Your task to perform on an android device: turn off picture-in-picture Image 0: 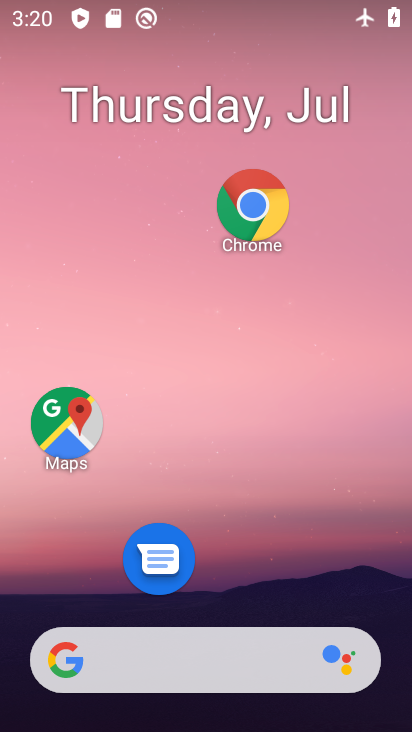
Step 0: drag from (306, 637) to (355, 78)
Your task to perform on an android device: turn off picture-in-picture Image 1: 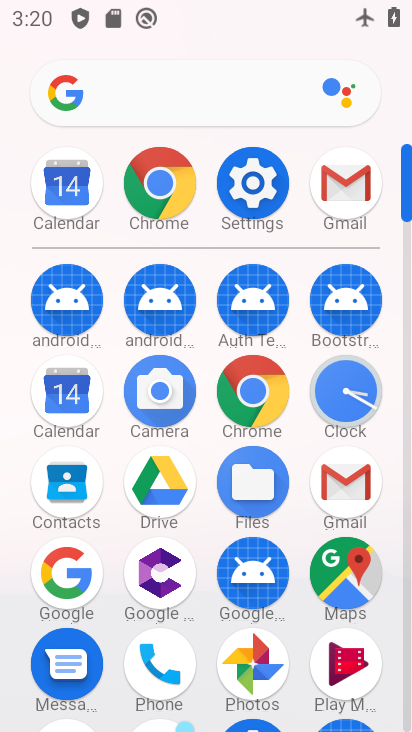
Step 1: drag from (184, 508) to (174, 259)
Your task to perform on an android device: turn off picture-in-picture Image 2: 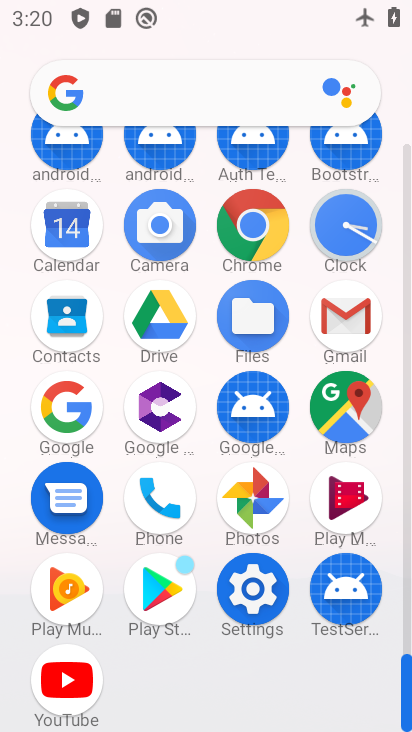
Step 2: click (259, 613)
Your task to perform on an android device: turn off picture-in-picture Image 3: 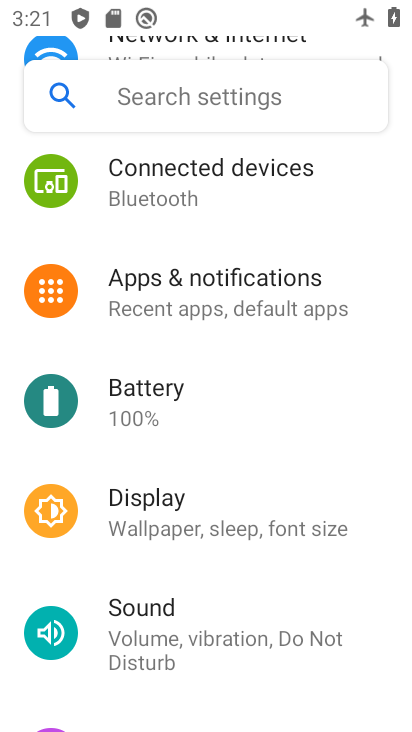
Step 3: click (206, 298)
Your task to perform on an android device: turn off picture-in-picture Image 4: 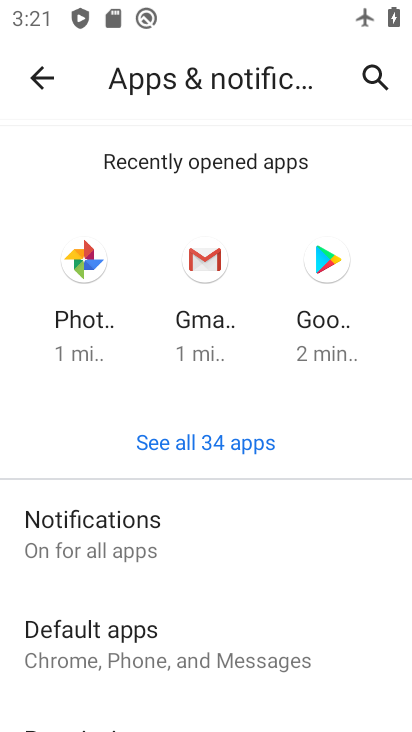
Step 4: click (248, 160)
Your task to perform on an android device: turn off picture-in-picture Image 5: 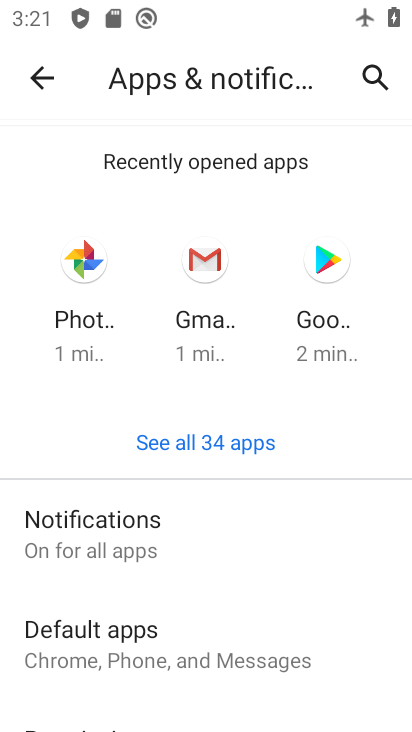
Step 5: drag from (164, 616) to (220, 277)
Your task to perform on an android device: turn off picture-in-picture Image 6: 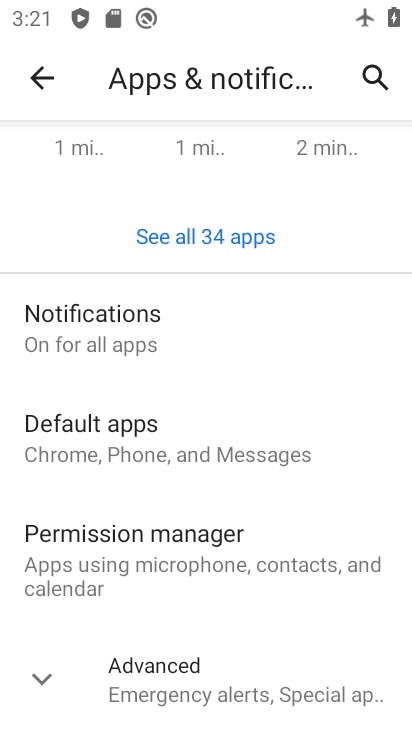
Step 6: click (199, 694)
Your task to perform on an android device: turn off picture-in-picture Image 7: 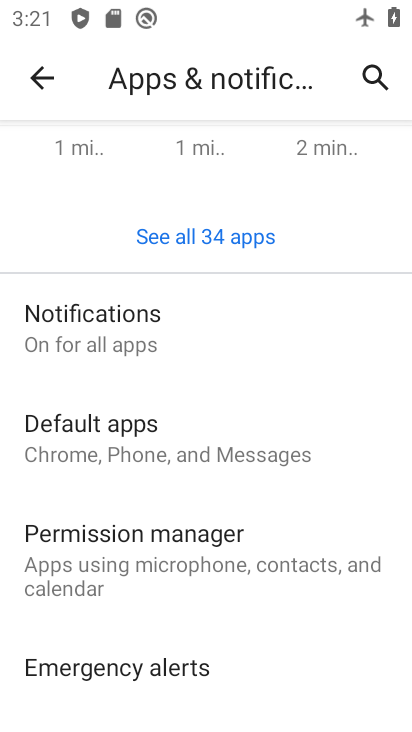
Step 7: drag from (170, 627) to (212, 242)
Your task to perform on an android device: turn off picture-in-picture Image 8: 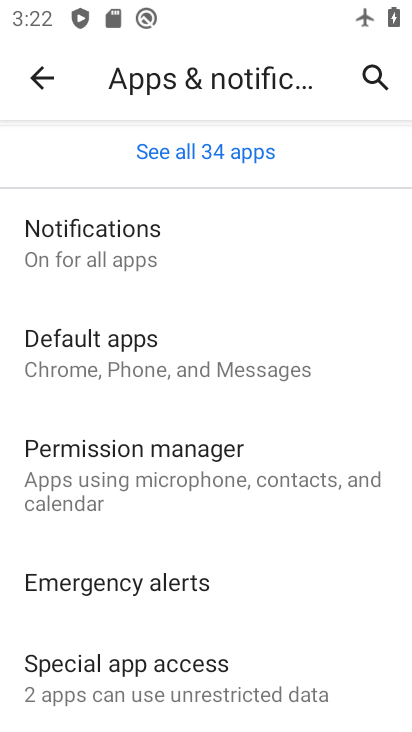
Step 8: click (190, 671)
Your task to perform on an android device: turn off picture-in-picture Image 9: 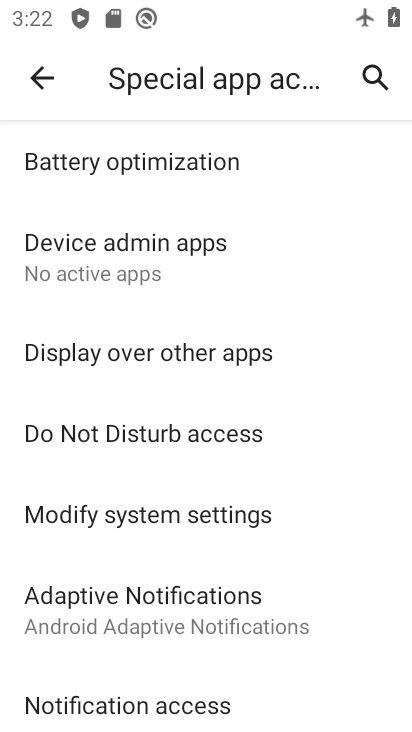
Step 9: drag from (165, 548) to (242, 157)
Your task to perform on an android device: turn off picture-in-picture Image 10: 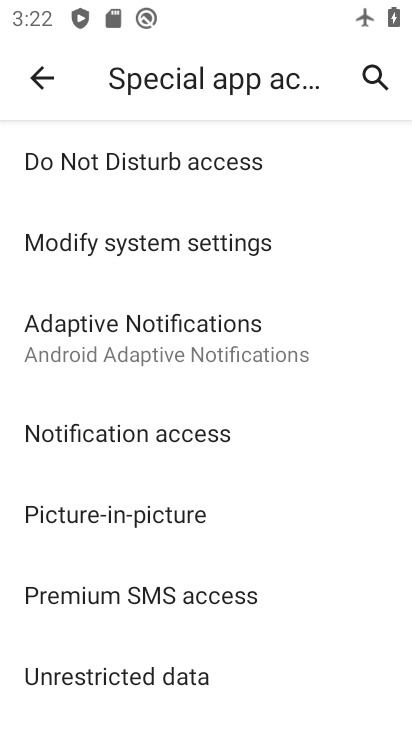
Step 10: click (184, 508)
Your task to perform on an android device: turn off picture-in-picture Image 11: 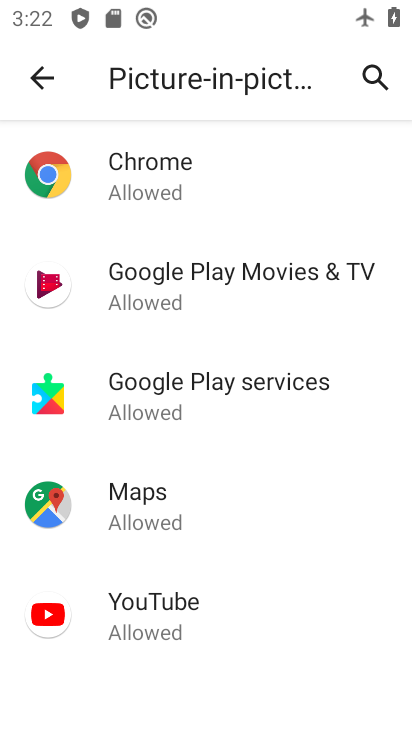
Step 11: click (153, 174)
Your task to perform on an android device: turn off picture-in-picture Image 12: 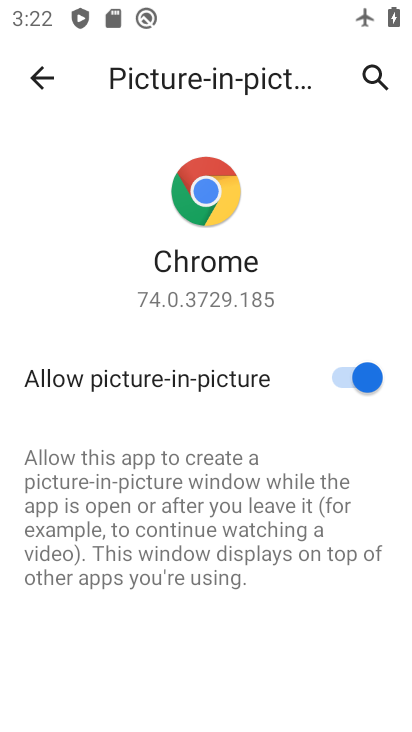
Step 12: click (322, 379)
Your task to perform on an android device: turn off picture-in-picture Image 13: 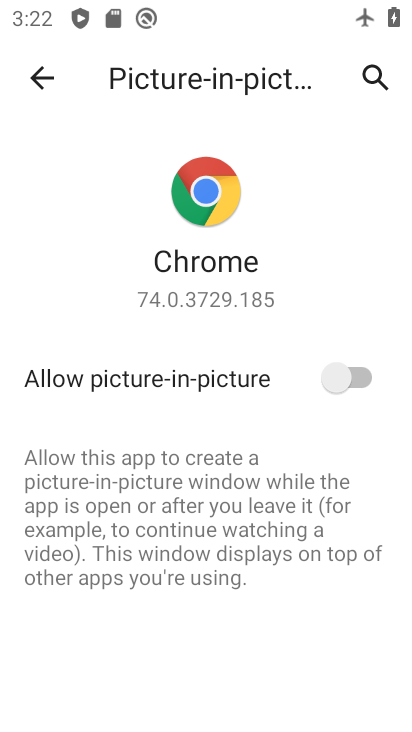
Step 13: task complete